Your task to perform on an android device: Go to sound settings Image 0: 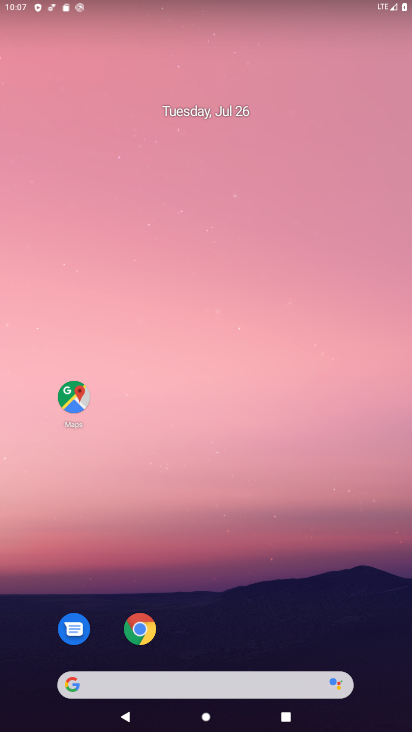
Step 0: drag from (161, 685) to (200, 34)
Your task to perform on an android device: Go to sound settings Image 1: 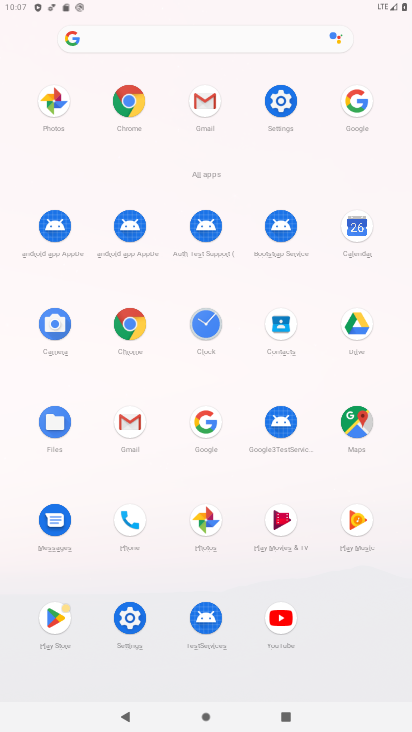
Step 1: click (281, 100)
Your task to perform on an android device: Go to sound settings Image 2: 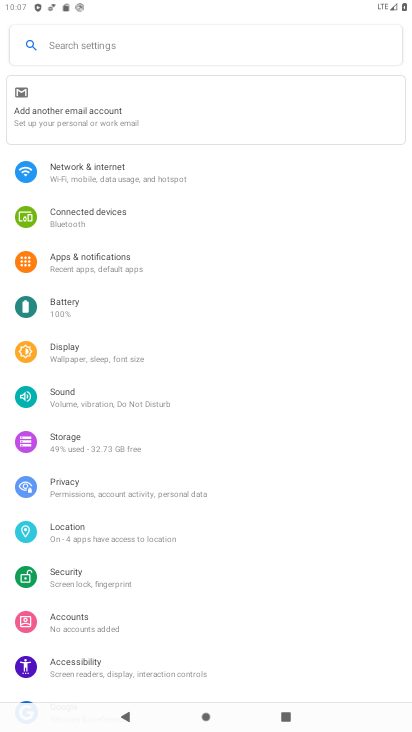
Step 2: click (81, 399)
Your task to perform on an android device: Go to sound settings Image 3: 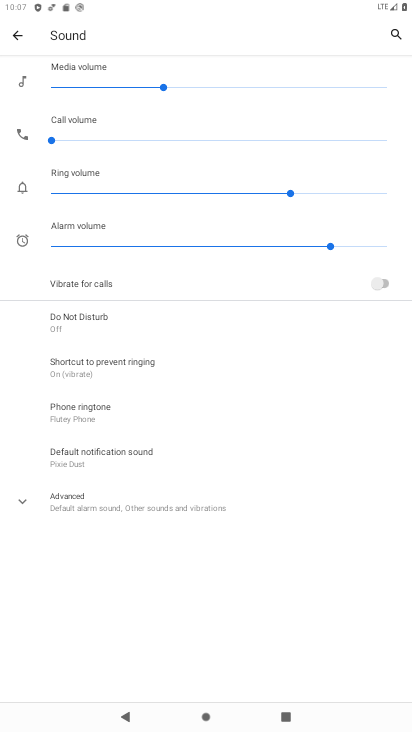
Step 3: task complete